Your task to perform on an android device: Go to Wikipedia Image 0: 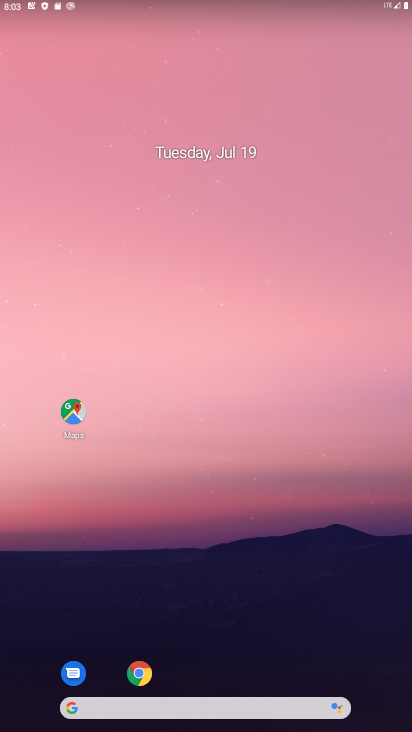
Step 0: drag from (400, 681) to (257, 3)
Your task to perform on an android device: Go to Wikipedia Image 1: 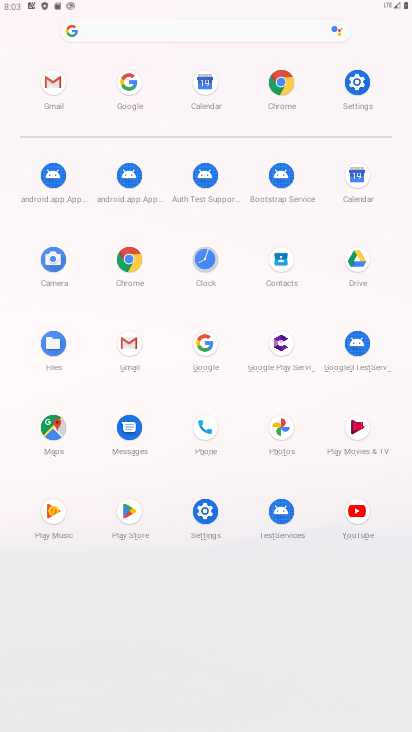
Step 1: click (202, 357)
Your task to perform on an android device: Go to Wikipedia Image 2: 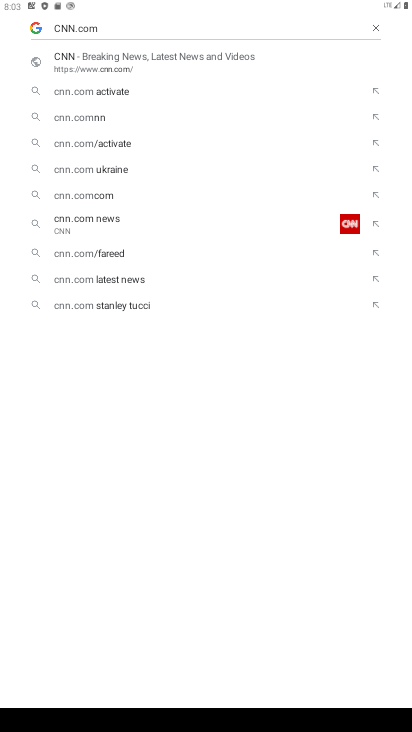
Step 2: click (373, 26)
Your task to perform on an android device: Go to Wikipedia Image 3: 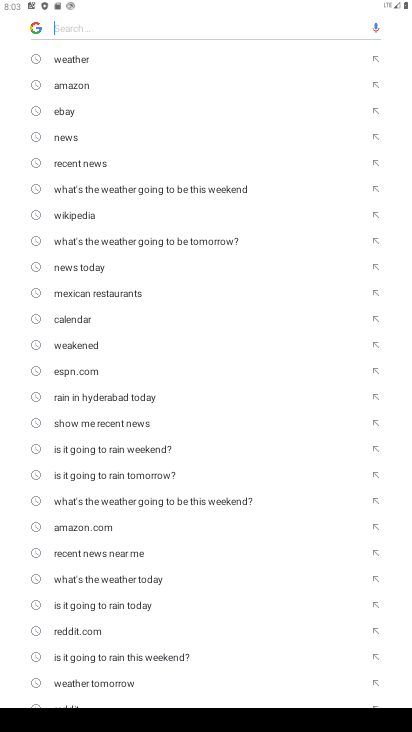
Step 3: click (85, 213)
Your task to perform on an android device: Go to Wikipedia Image 4: 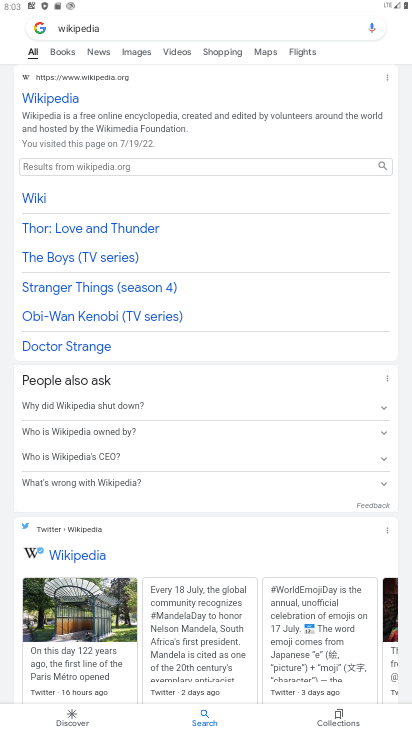
Step 4: task complete